Your task to perform on an android device: Clear the shopping cart on bestbuy.com. Add "asus rog" to the cart on bestbuy.com Image 0: 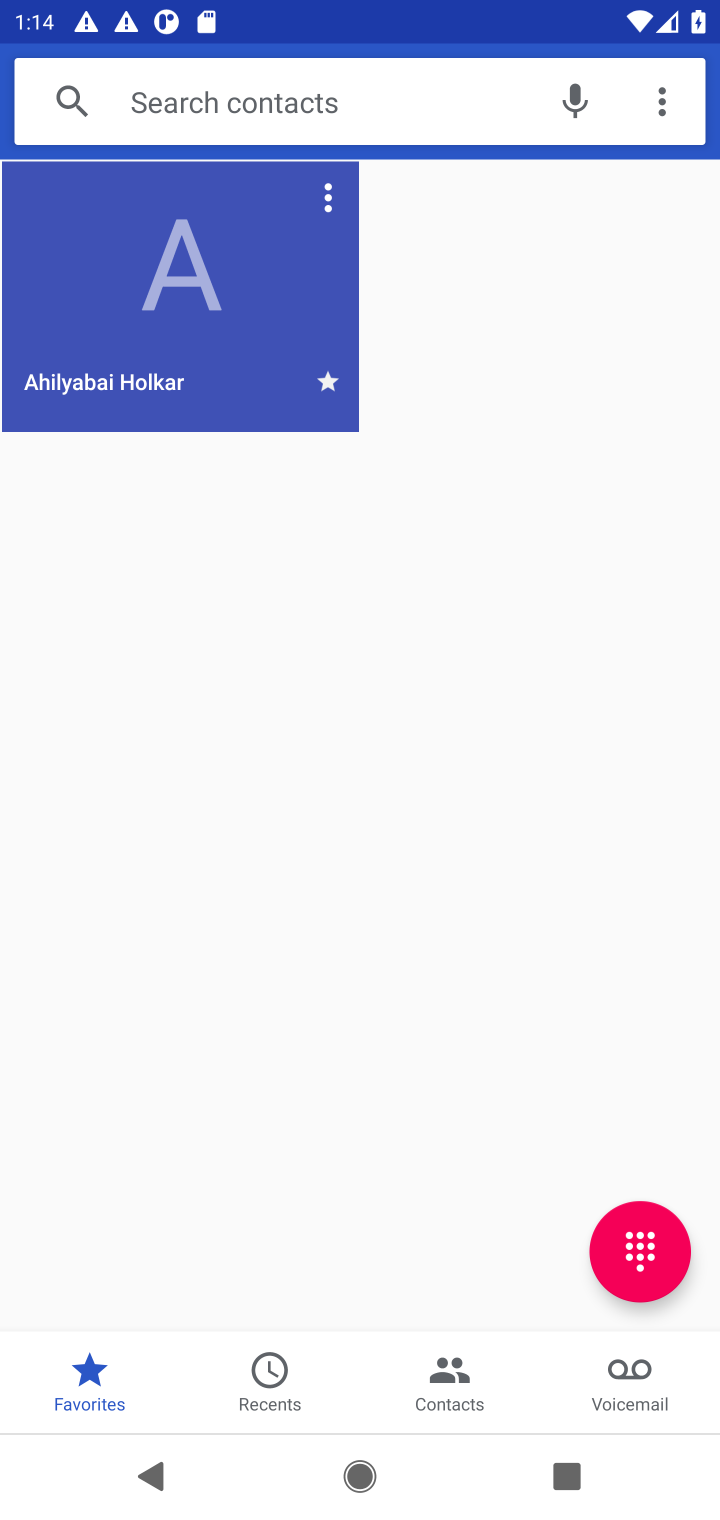
Step 0: press home button
Your task to perform on an android device: Clear the shopping cart on bestbuy.com. Add "asus rog" to the cart on bestbuy.com Image 1: 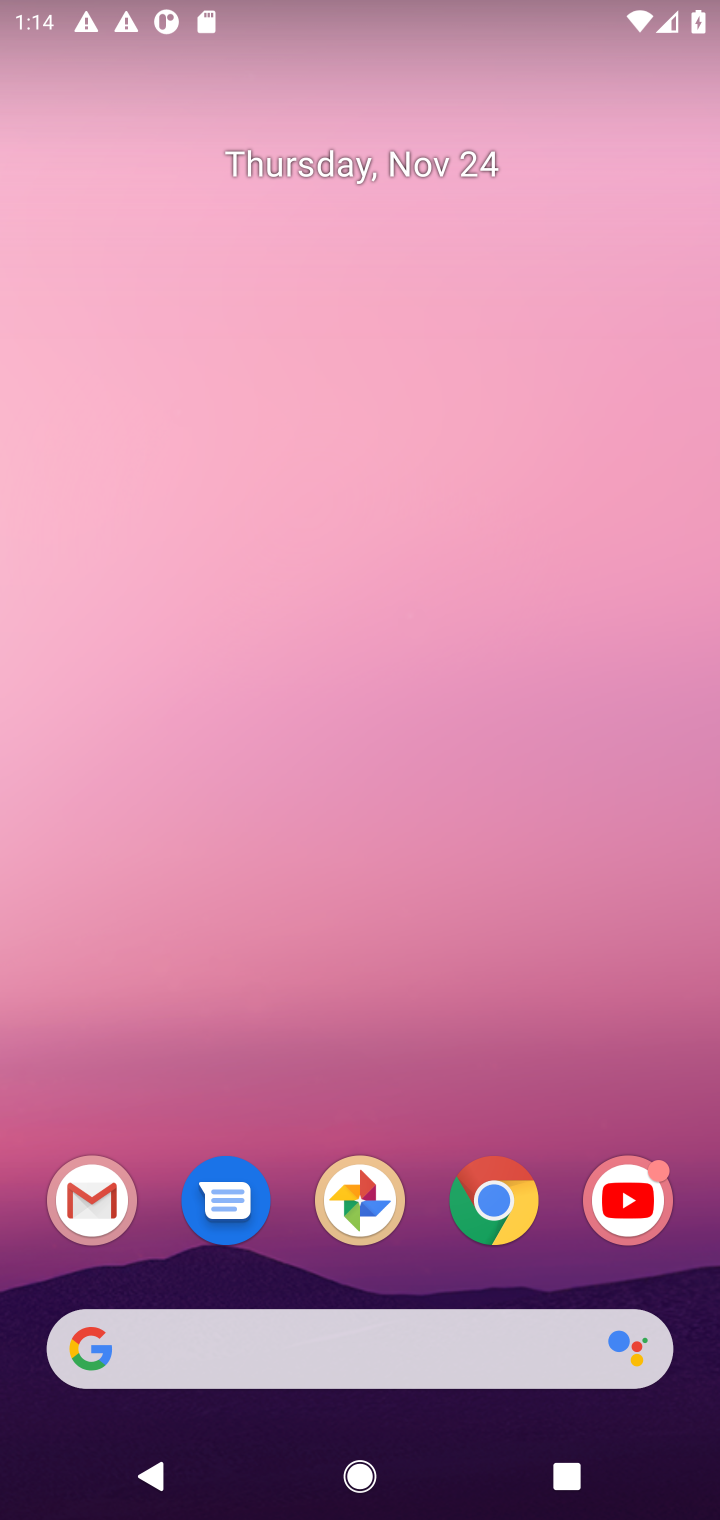
Step 1: click (290, 1317)
Your task to perform on an android device: Clear the shopping cart on bestbuy.com. Add "asus rog" to the cart on bestbuy.com Image 2: 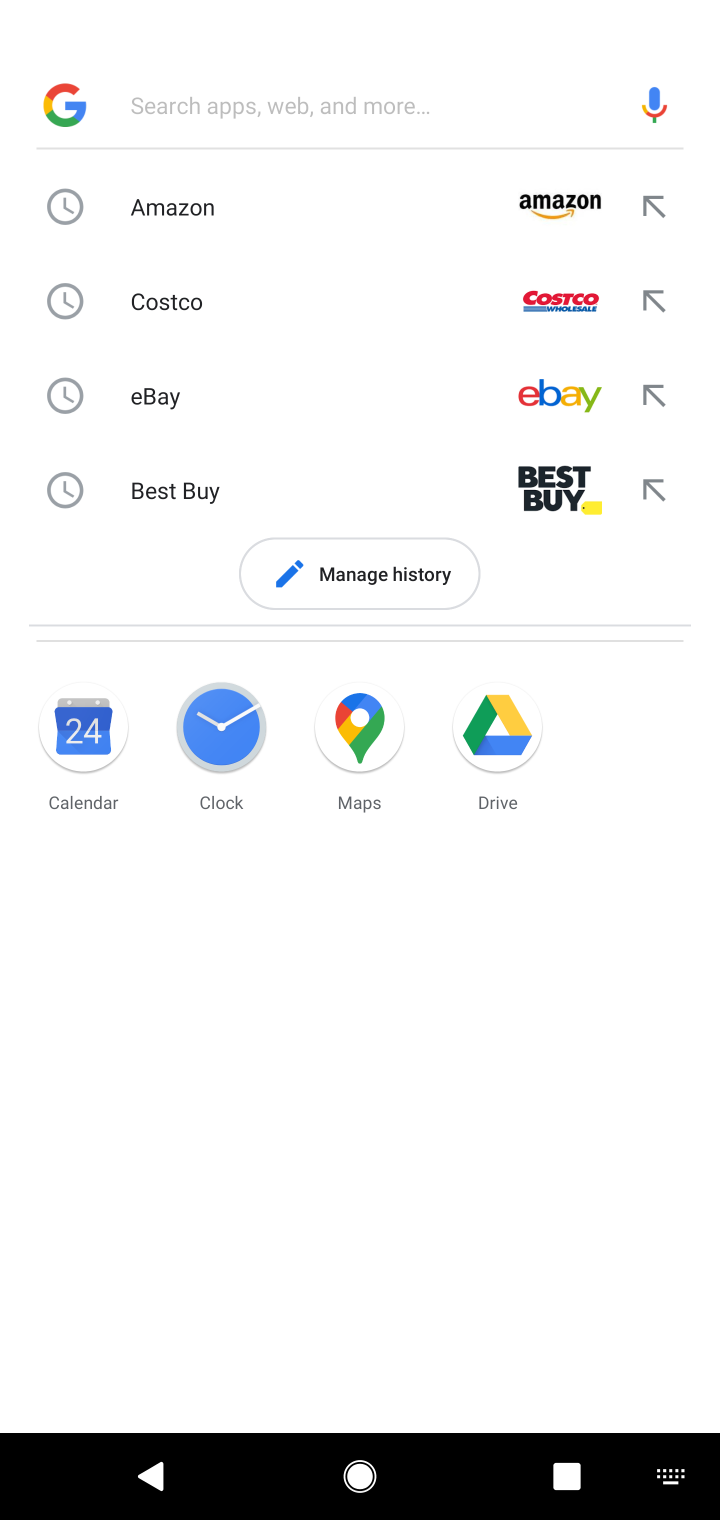
Step 2: click (230, 527)
Your task to perform on an android device: Clear the shopping cart on bestbuy.com. Add "asus rog" to the cart on bestbuy.com Image 3: 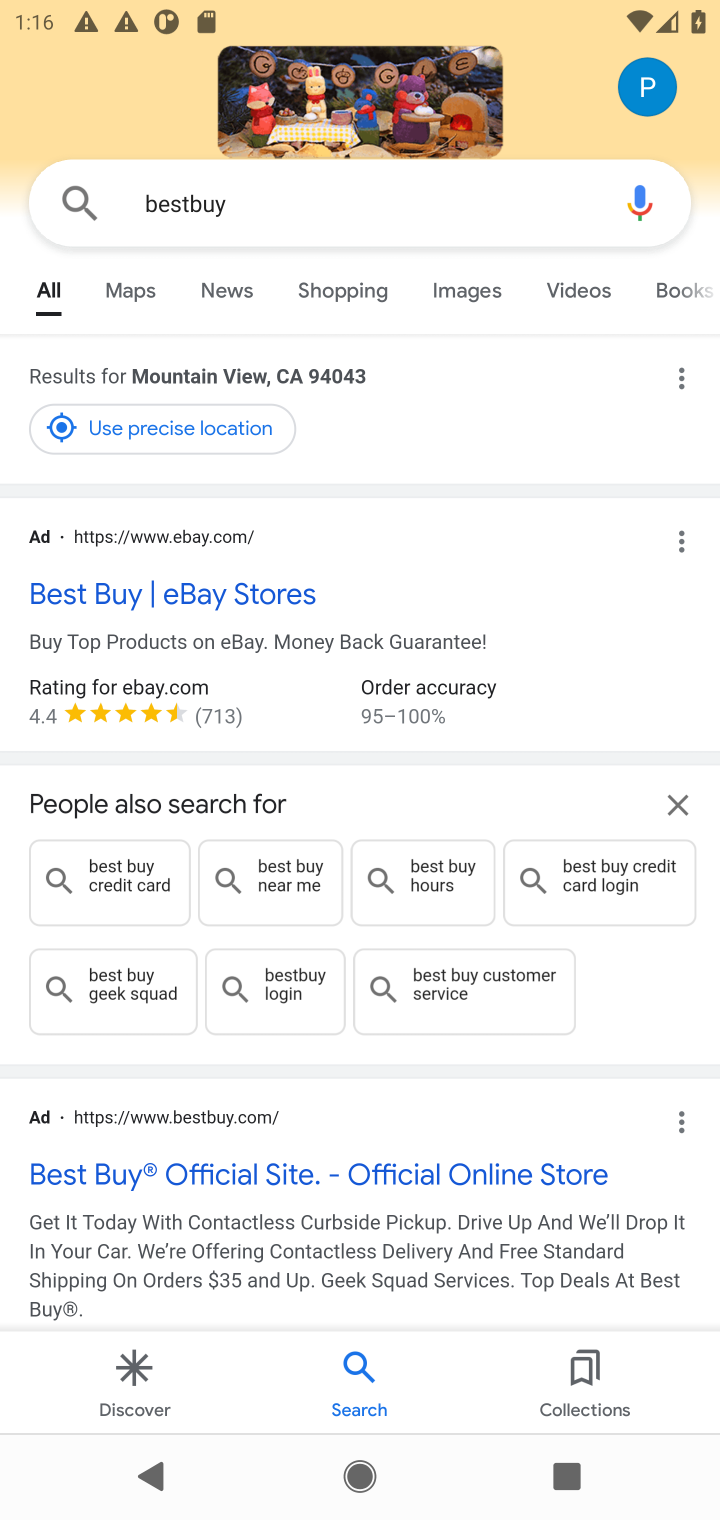
Step 3: click (287, 604)
Your task to perform on an android device: Clear the shopping cart on bestbuy.com. Add "asus rog" to the cart on bestbuy.com Image 4: 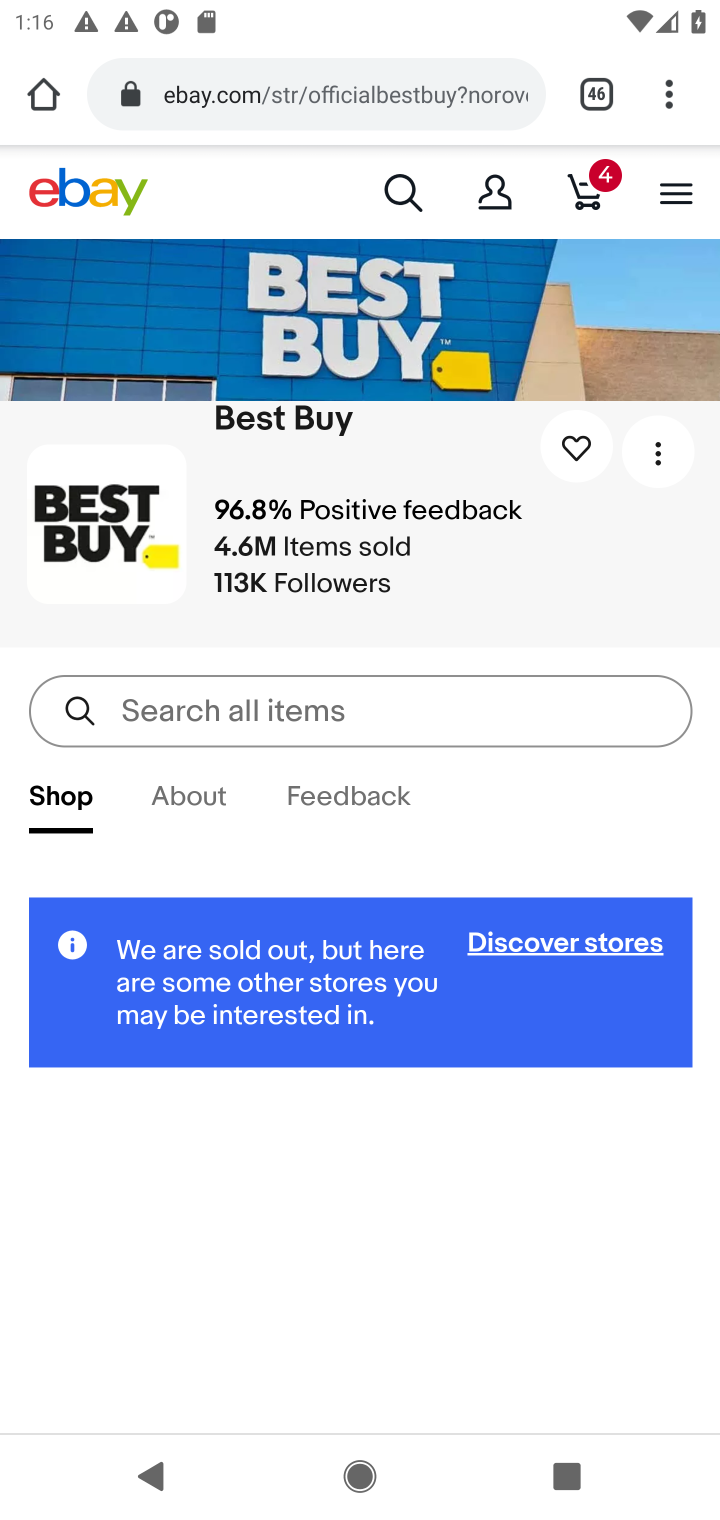
Step 4: click (169, 735)
Your task to perform on an android device: Clear the shopping cart on bestbuy.com. Add "asus rog" to the cart on bestbuy.com Image 5: 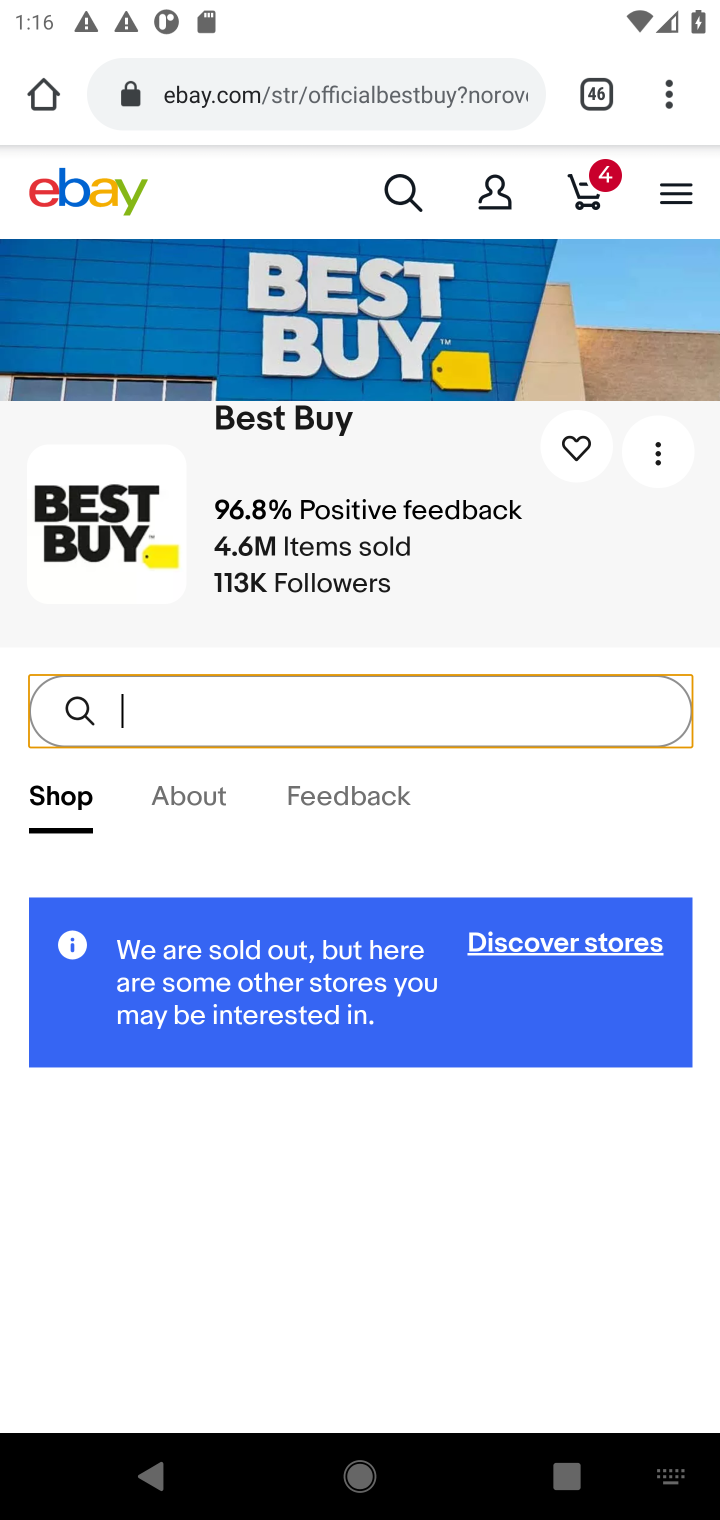
Step 5: type "asus rog"
Your task to perform on an android device: Clear the shopping cart on bestbuy.com. Add "asus rog" to the cart on bestbuy.com Image 6: 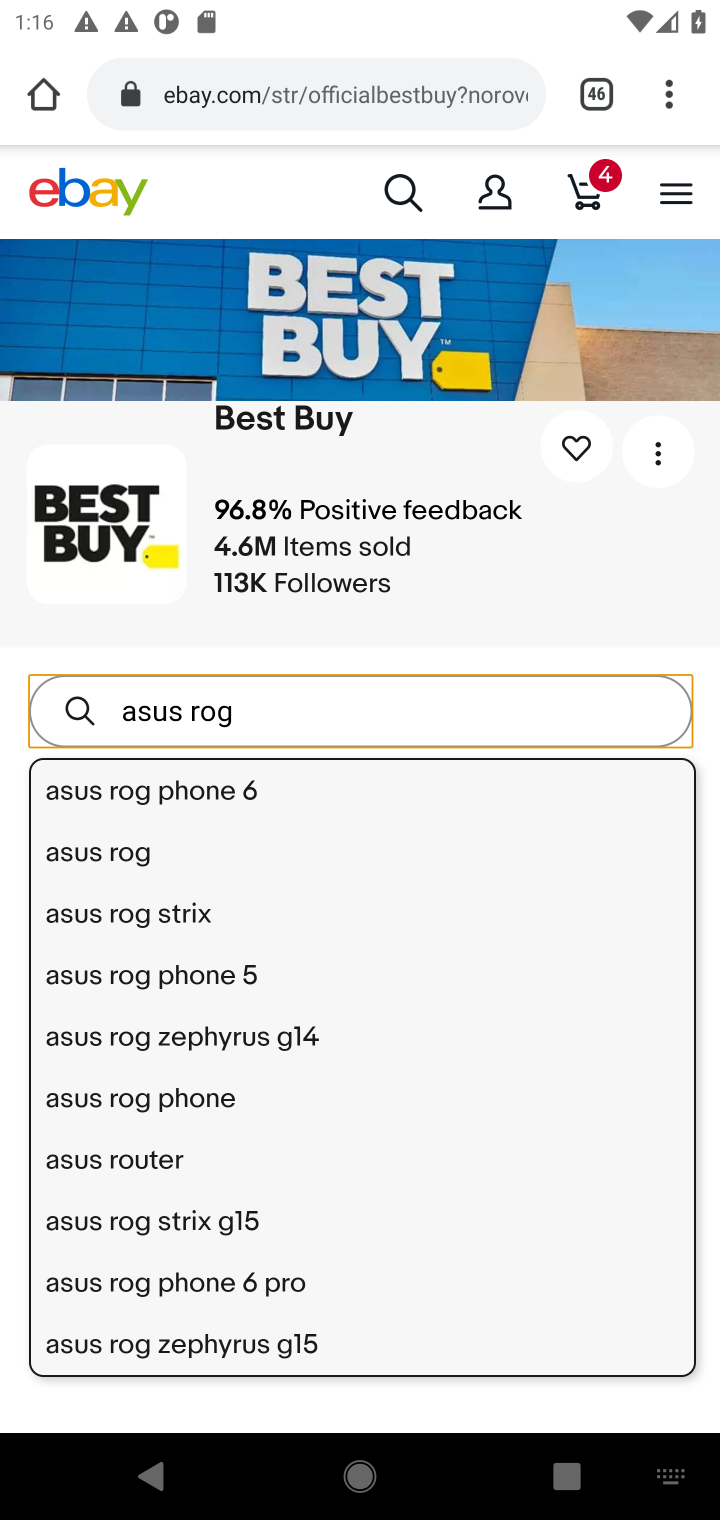
Step 6: click (127, 861)
Your task to perform on an android device: Clear the shopping cart on bestbuy.com. Add "asus rog" to the cart on bestbuy.com Image 7: 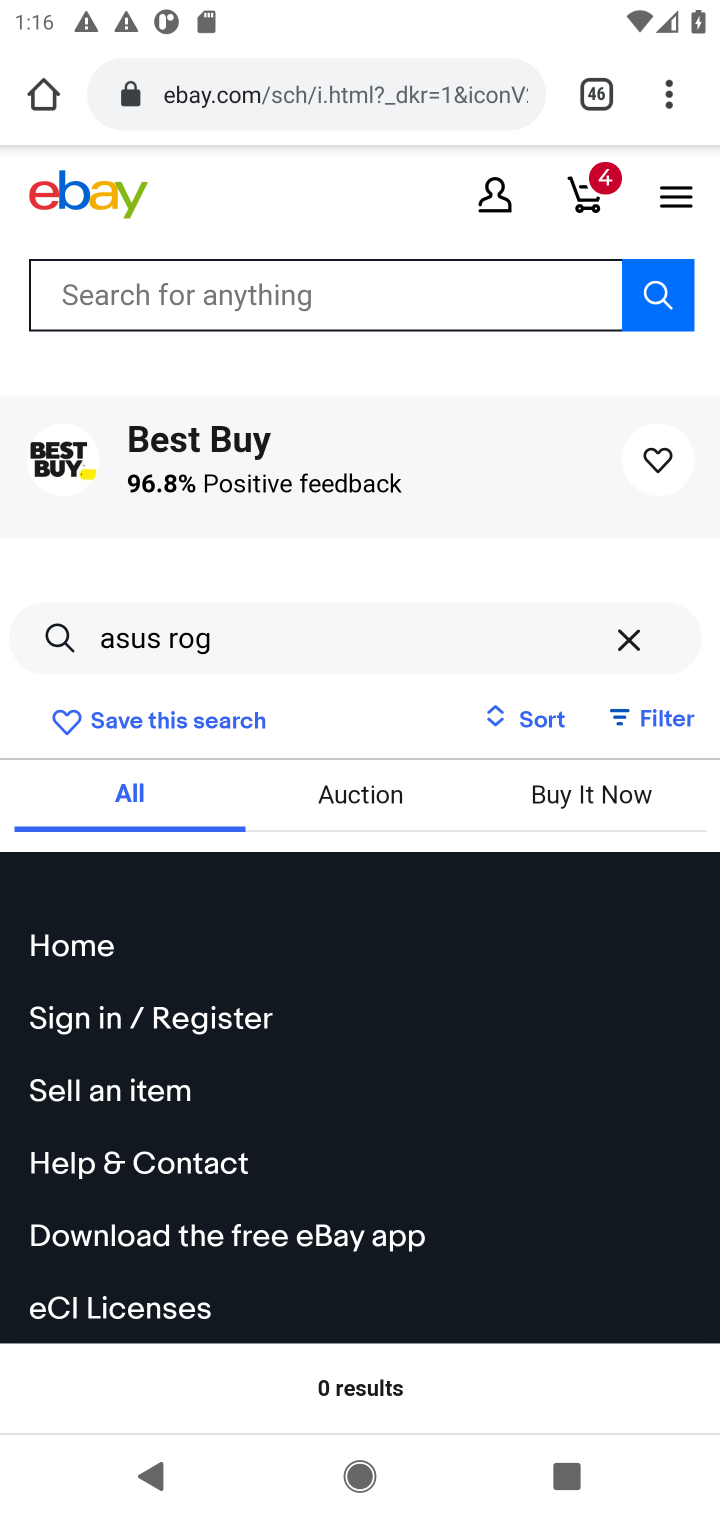
Step 7: task complete